Your task to perform on an android device: Open Chrome and go to the settings page Image 0: 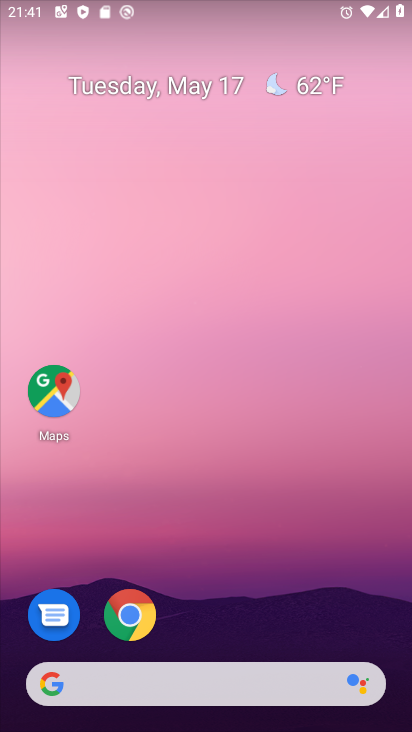
Step 0: press home button
Your task to perform on an android device: Open Chrome and go to the settings page Image 1: 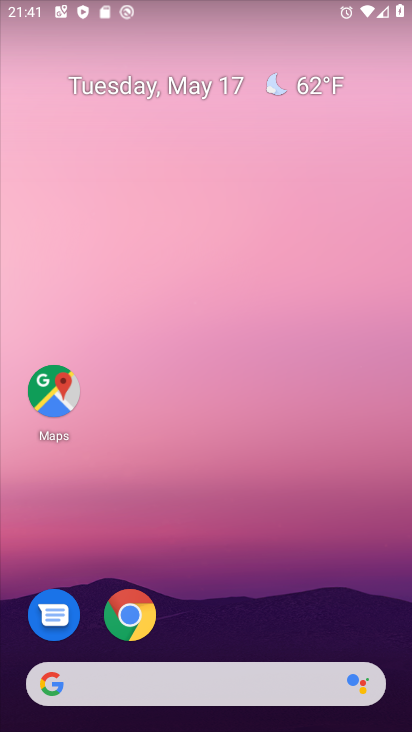
Step 1: click (112, 620)
Your task to perform on an android device: Open Chrome and go to the settings page Image 2: 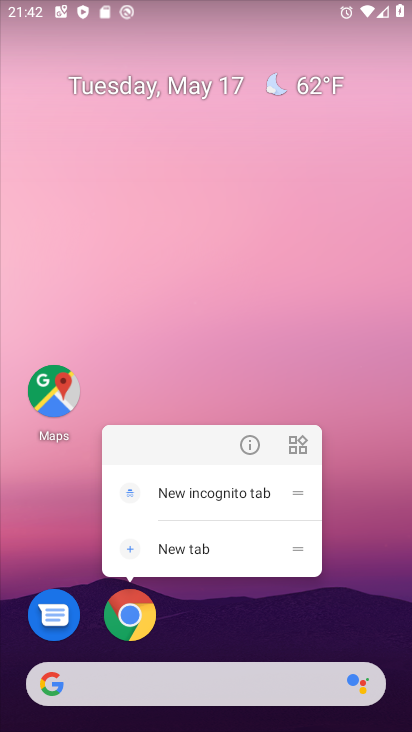
Step 2: click (112, 630)
Your task to perform on an android device: Open Chrome and go to the settings page Image 3: 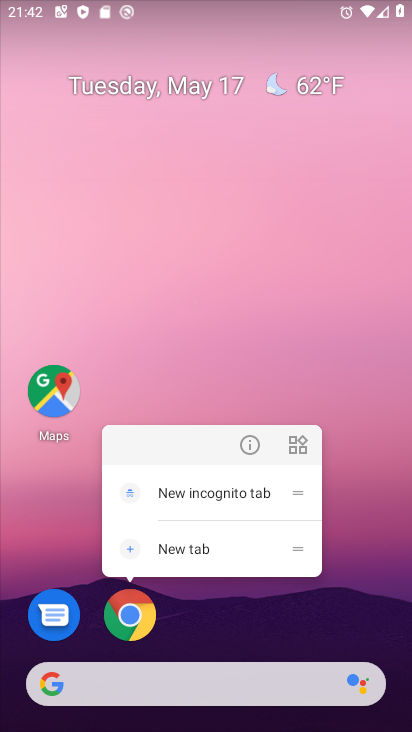
Step 3: click (117, 634)
Your task to perform on an android device: Open Chrome and go to the settings page Image 4: 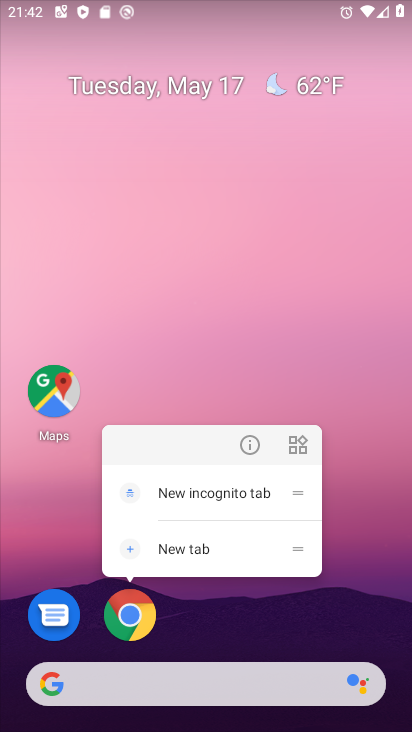
Step 4: click (117, 634)
Your task to perform on an android device: Open Chrome and go to the settings page Image 5: 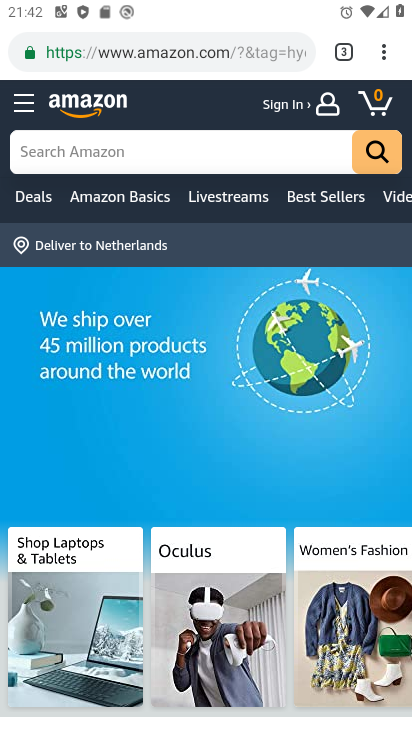
Step 5: task complete